Your task to perform on an android device: change the clock style Image 0: 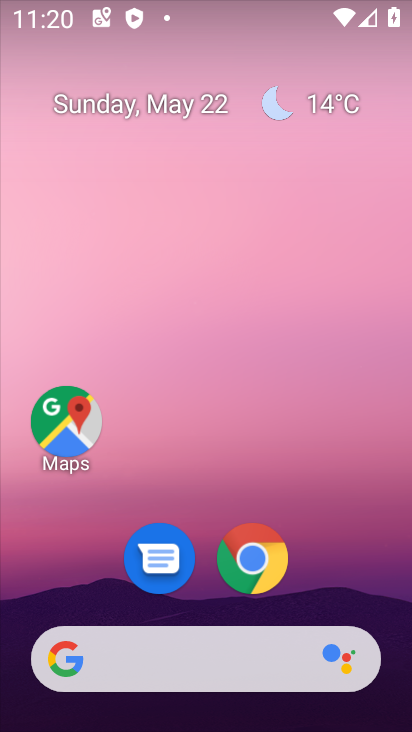
Step 0: drag from (380, 487) to (331, 24)
Your task to perform on an android device: change the clock style Image 1: 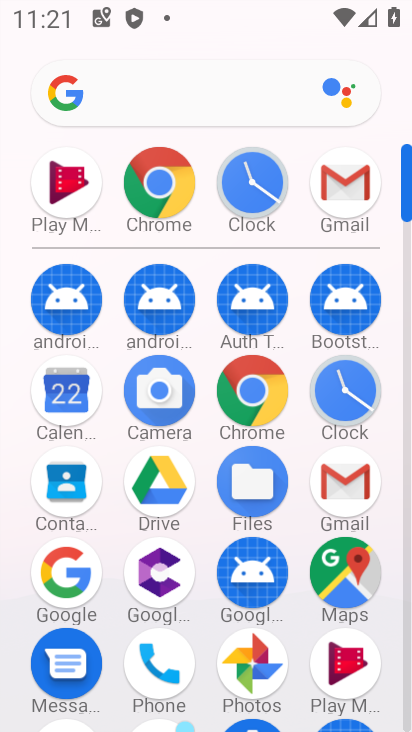
Step 1: click (248, 195)
Your task to perform on an android device: change the clock style Image 2: 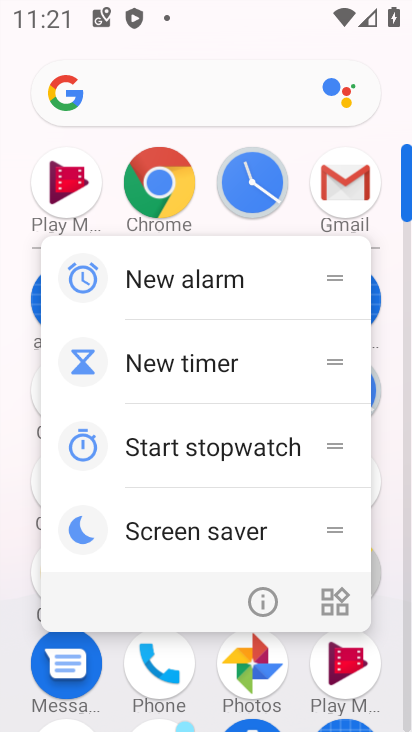
Step 2: click (249, 182)
Your task to perform on an android device: change the clock style Image 3: 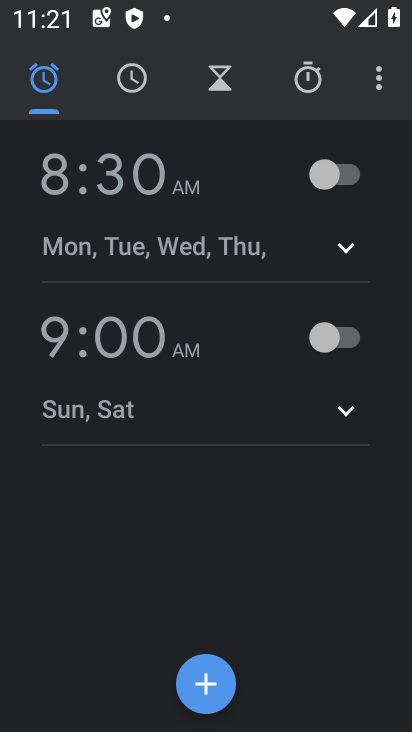
Step 3: click (382, 82)
Your task to perform on an android device: change the clock style Image 4: 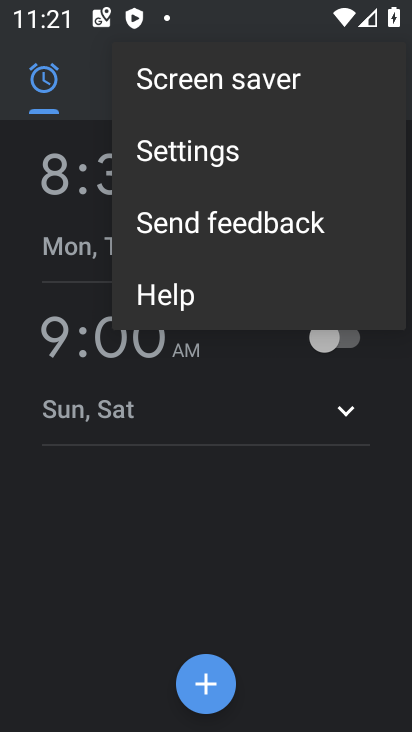
Step 4: click (182, 161)
Your task to perform on an android device: change the clock style Image 5: 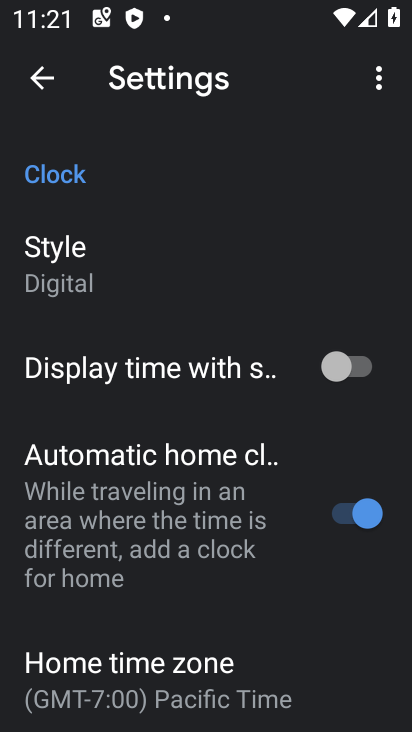
Step 5: click (68, 287)
Your task to perform on an android device: change the clock style Image 6: 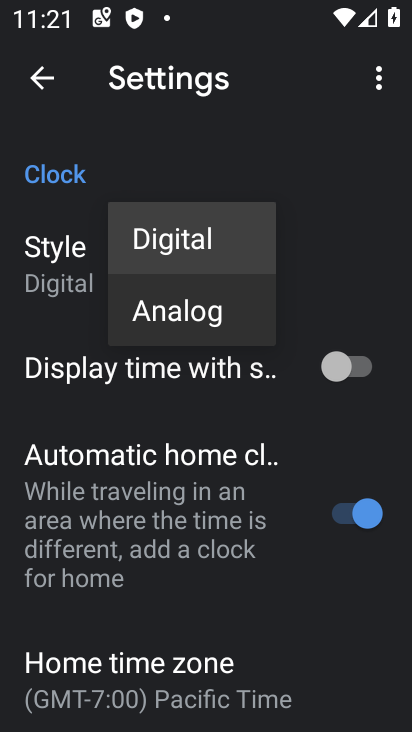
Step 6: click (169, 323)
Your task to perform on an android device: change the clock style Image 7: 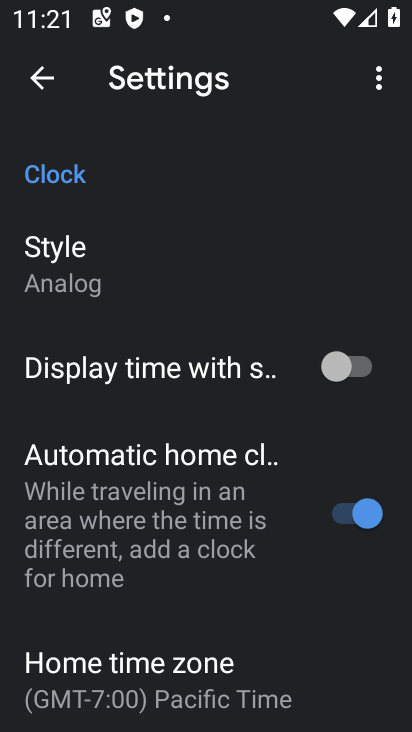
Step 7: task complete